Your task to perform on an android device: set the stopwatch Image 0: 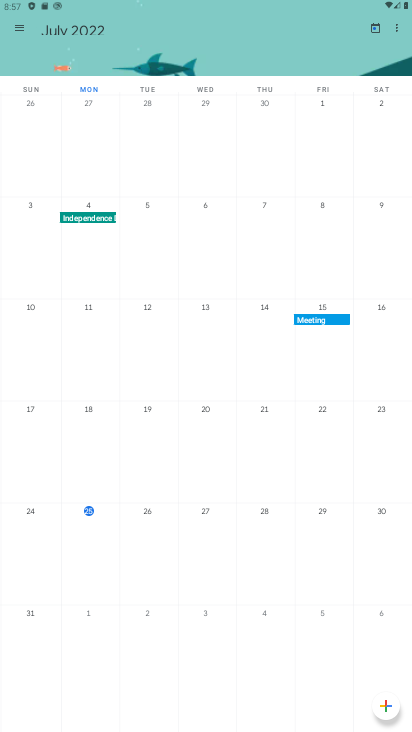
Step 0: press home button
Your task to perform on an android device: set the stopwatch Image 1: 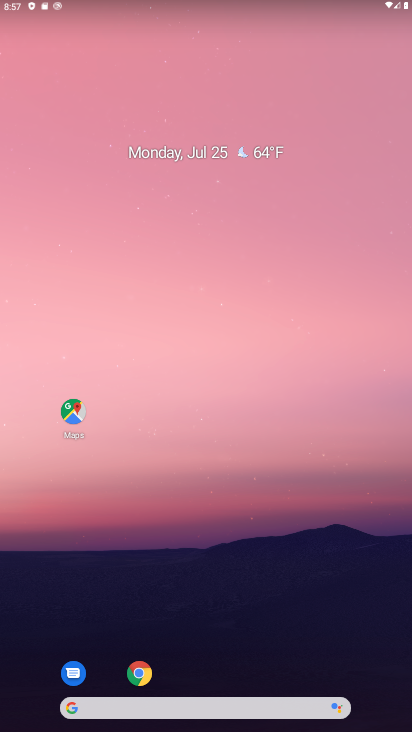
Step 1: drag from (217, 675) to (181, 0)
Your task to perform on an android device: set the stopwatch Image 2: 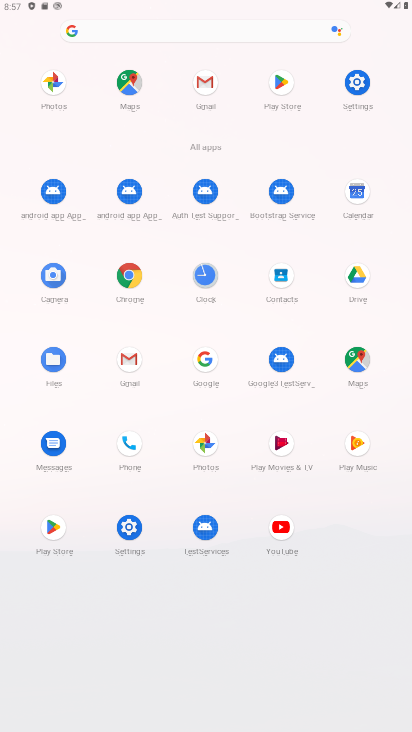
Step 2: click (202, 272)
Your task to perform on an android device: set the stopwatch Image 3: 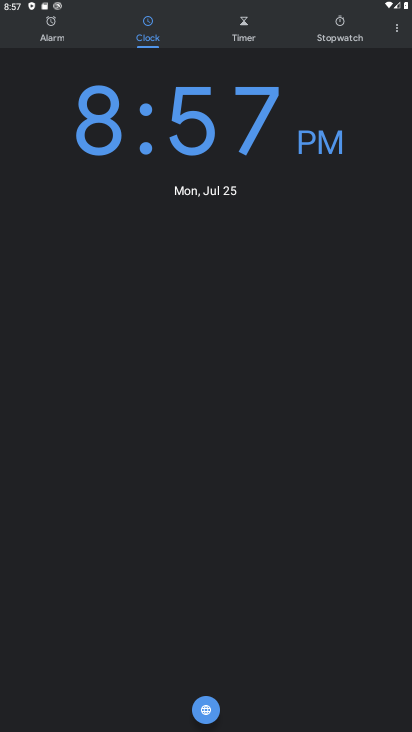
Step 3: click (340, 22)
Your task to perform on an android device: set the stopwatch Image 4: 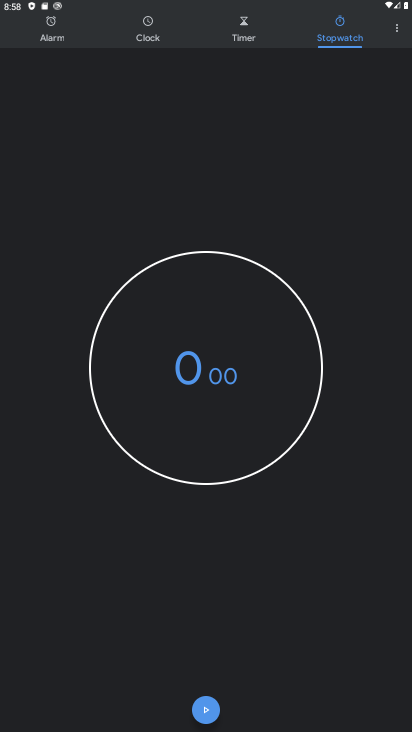
Step 4: click (204, 711)
Your task to perform on an android device: set the stopwatch Image 5: 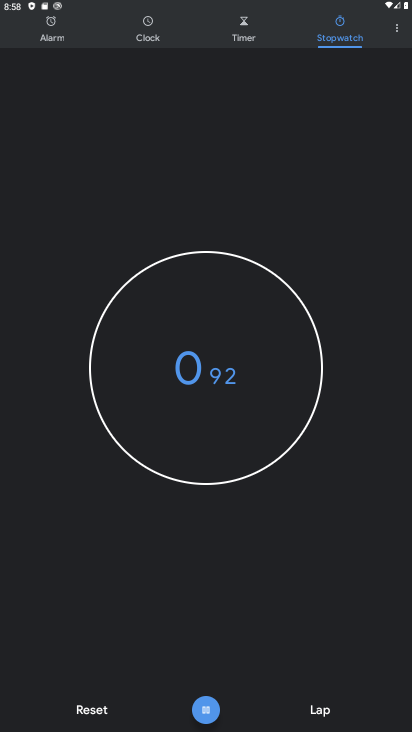
Step 5: task complete